Your task to perform on an android device: Go to Maps Image 0: 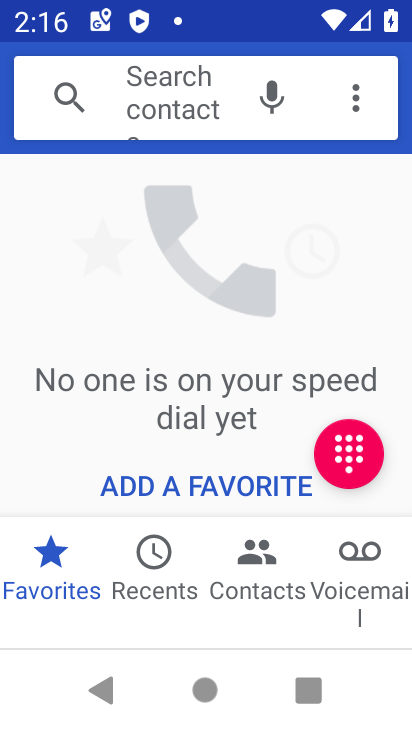
Step 0: press home button
Your task to perform on an android device: Go to Maps Image 1: 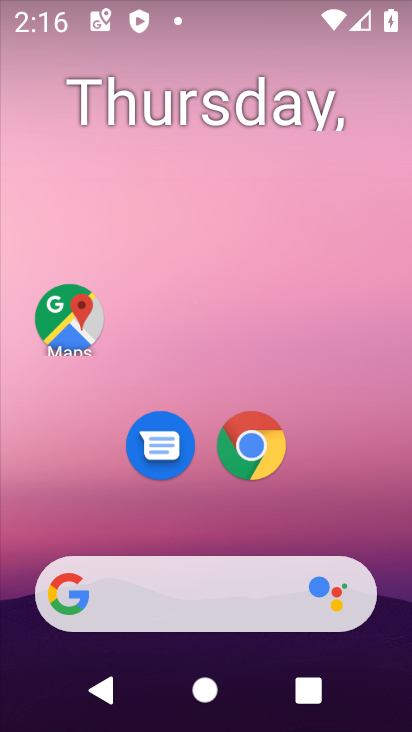
Step 1: click (67, 310)
Your task to perform on an android device: Go to Maps Image 2: 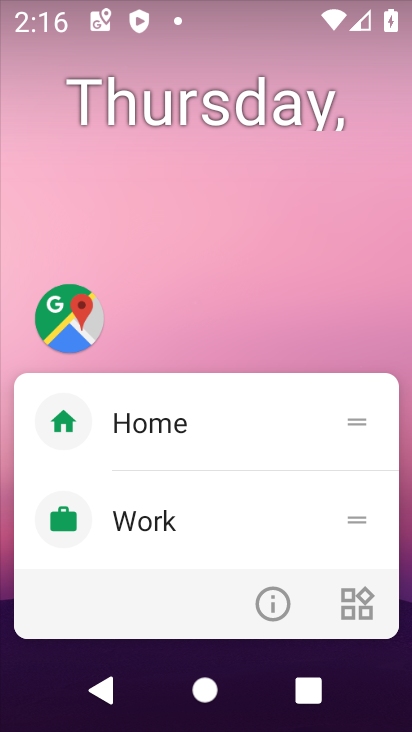
Step 2: click (74, 307)
Your task to perform on an android device: Go to Maps Image 3: 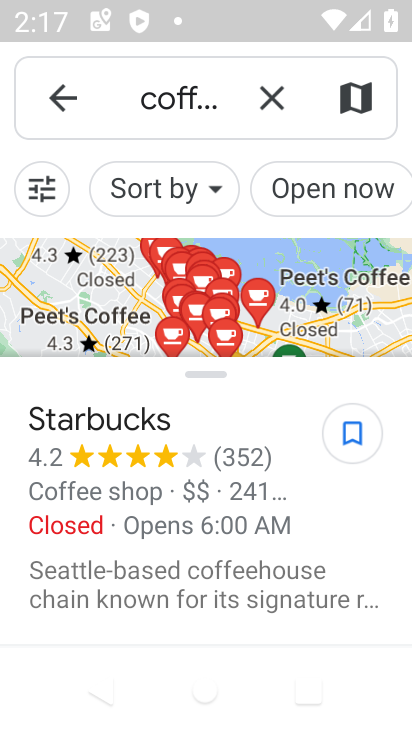
Step 3: click (280, 99)
Your task to perform on an android device: Go to Maps Image 4: 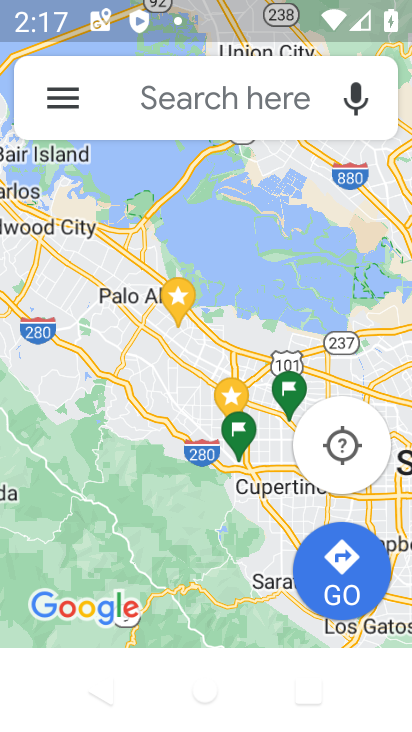
Step 4: task complete